Your task to perform on an android device: Go to Yahoo.com Image 0: 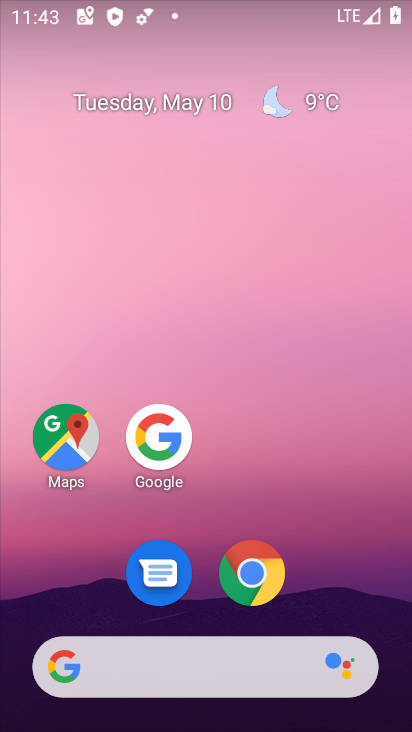
Step 0: drag from (175, 656) to (254, 247)
Your task to perform on an android device: Go to Yahoo.com Image 1: 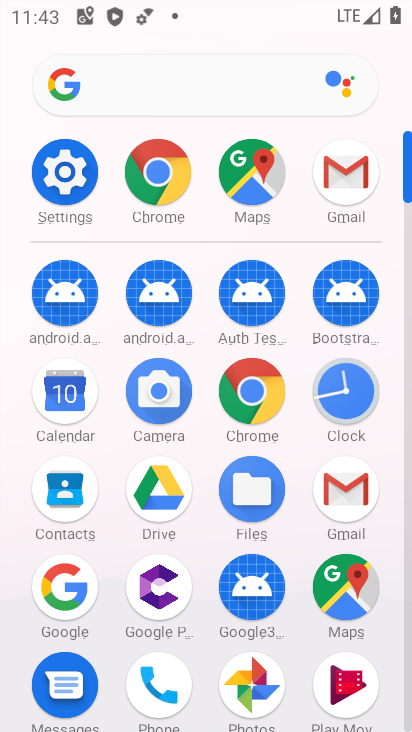
Step 1: click (170, 186)
Your task to perform on an android device: Go to Yahoo.com Image 2: 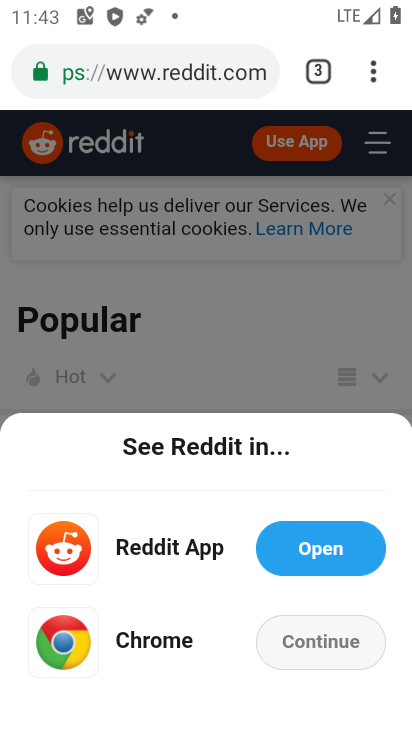
Step 2: drag from (371, 77) to (229, 136)
Your task to perform on an android device: Go to Yahoo.com Image 3: 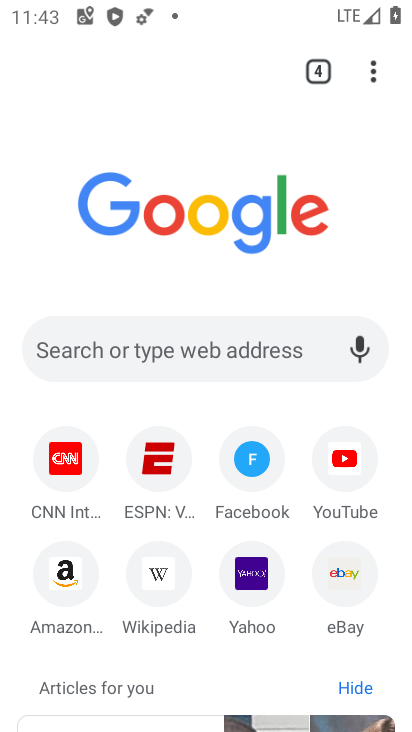
Step 3: click (253, 572)
Your task to perform on an android device: Go to Yahoo.com Image 4: 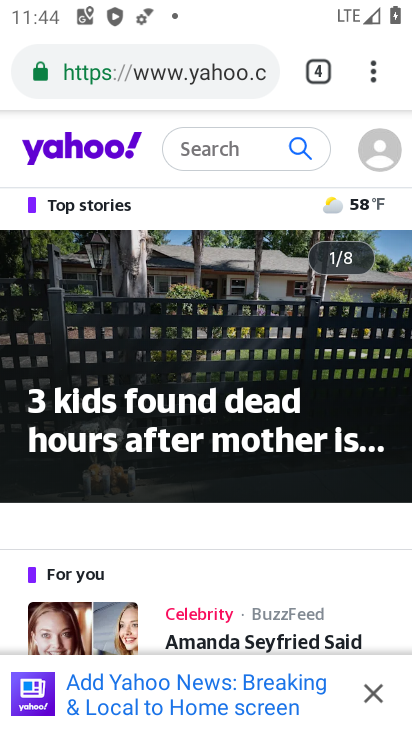
Step 4: task complete